Your task to perform on an android device: change keyboard looks Image 0: 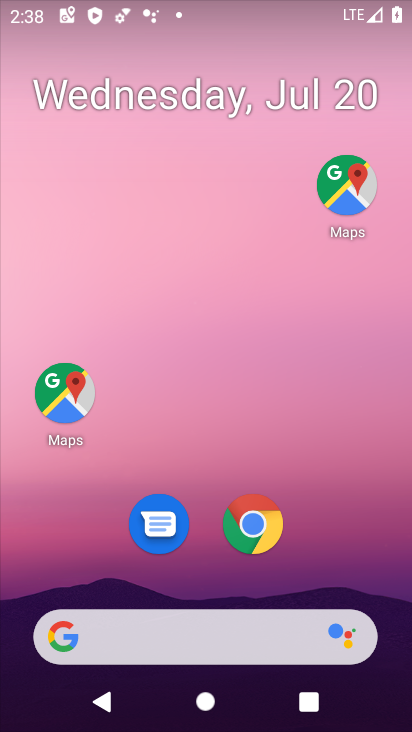
Step 0: drag from (334, 543) to (327, 75)
Your task to perform on an android device: change keyboard looks Image 1: 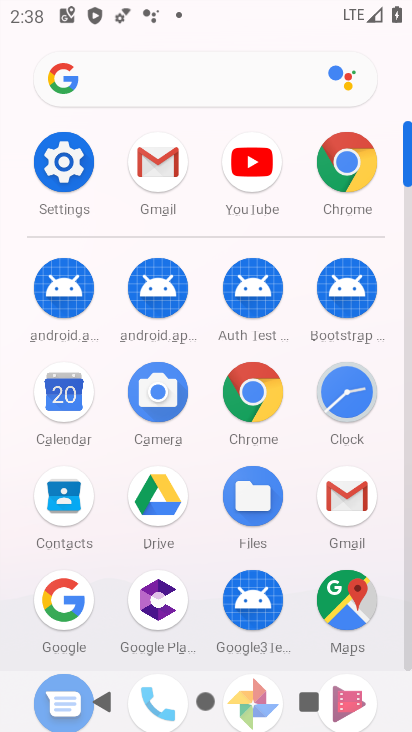
Step 1: click (70, 160)
Your task to perform on an android device: change keyboard looks Image 2: 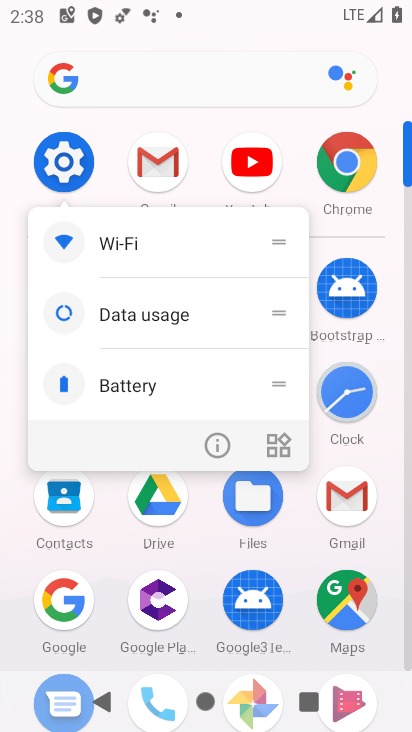
Step 2: click (67, 148)
Your task to perform on an android device: change keyboard looks Image 3: 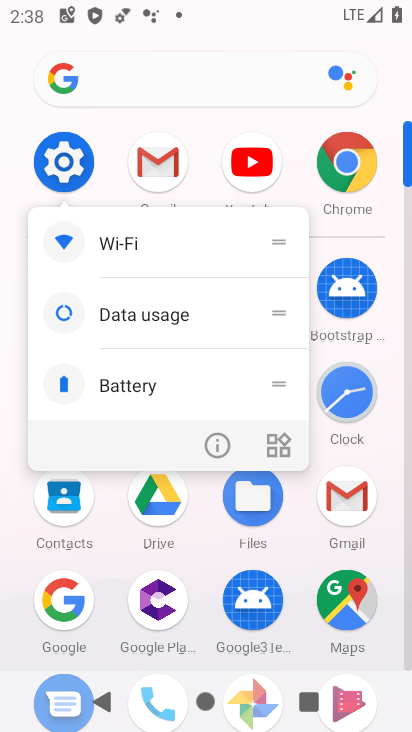
Step 3: click (65, 148)
Your task to perform on an android device: change keyboard looks Image 4: 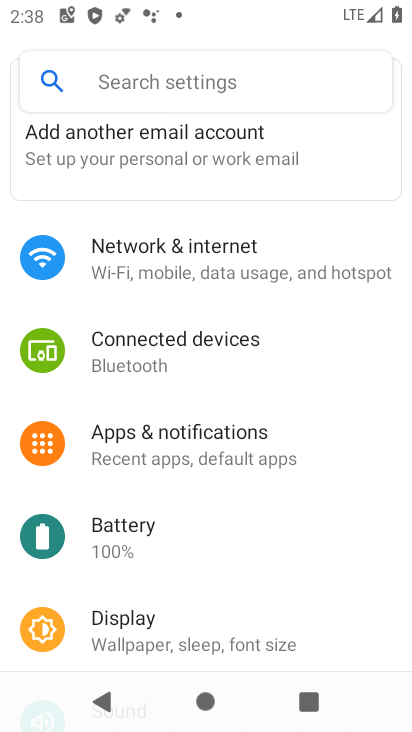
Step 4: drag from (219, 561) to (231, 99)
Your task to perform on an android device: change keyboard looks Image 5: 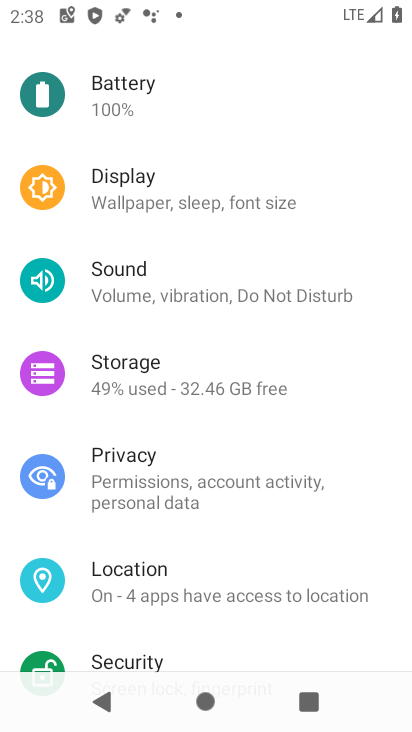
Step 5: drag from (239, 509) to (227, 115)
Your task to perform on an android device: change keyboard looks Image 6: 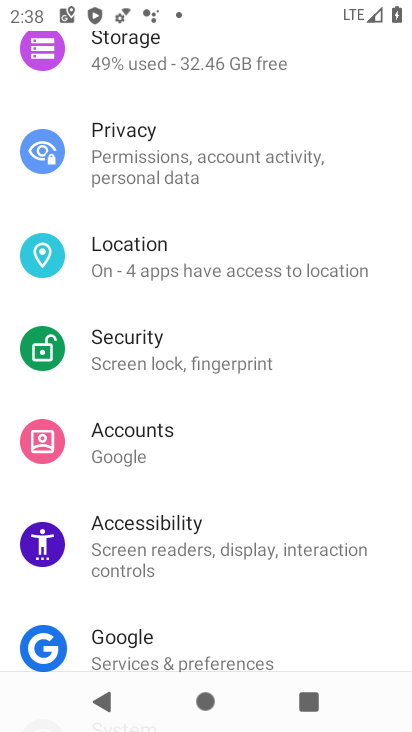
Step 6: drag from (255, 383) to (242, 125)
Your task to perform on an android device: change keyboard looks Image 7: 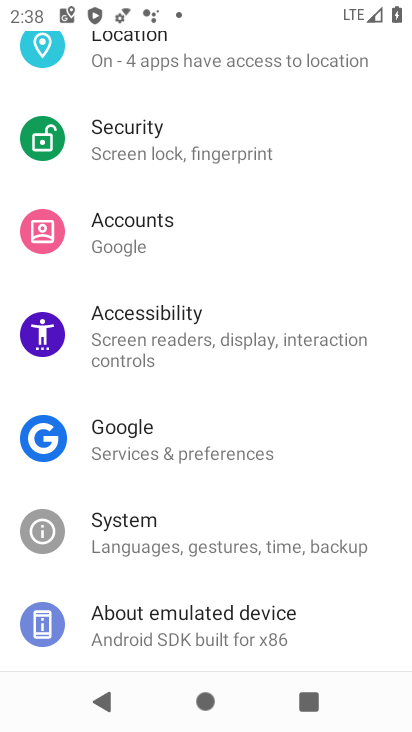
Step 7: click (205, 534)
Your task to perform on an android device: change keyboard looks Image 8: 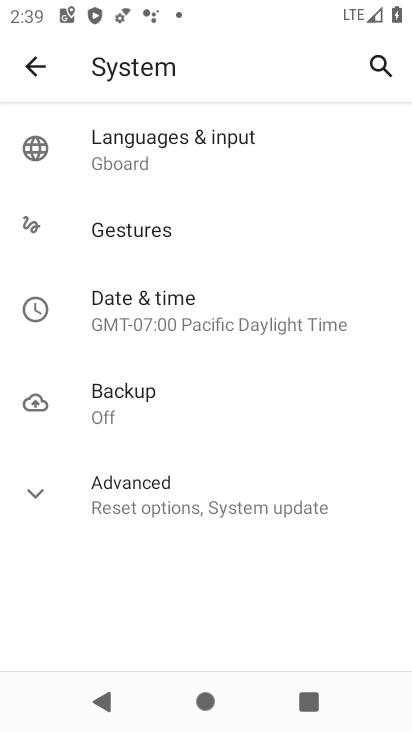
Step 8: click (183, 154)
Your task to perform on an android device: change keyboard looks Image 9: 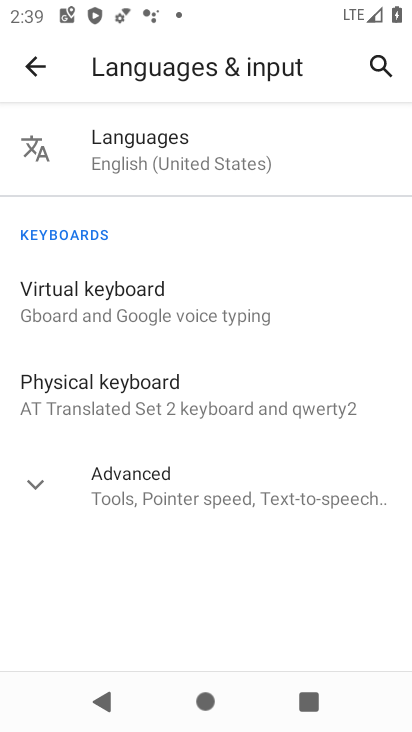
Step 9: click (112, 290)
Your task to perform on an android device: change keyboard looks Image 10: 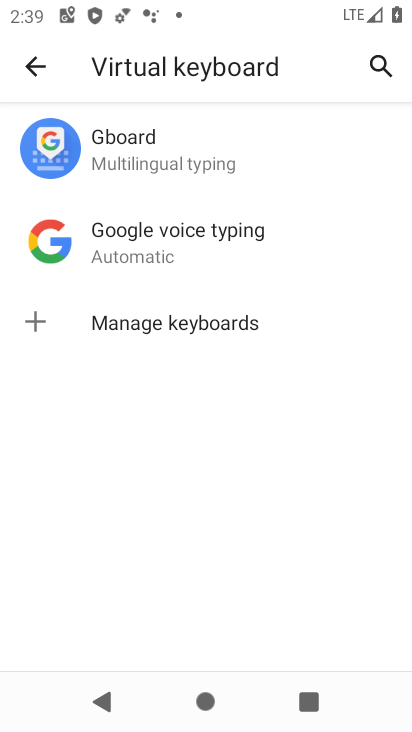
Step 10: click (162, 156)
Your task to perform on an android device: change keyboard looks Image 11: 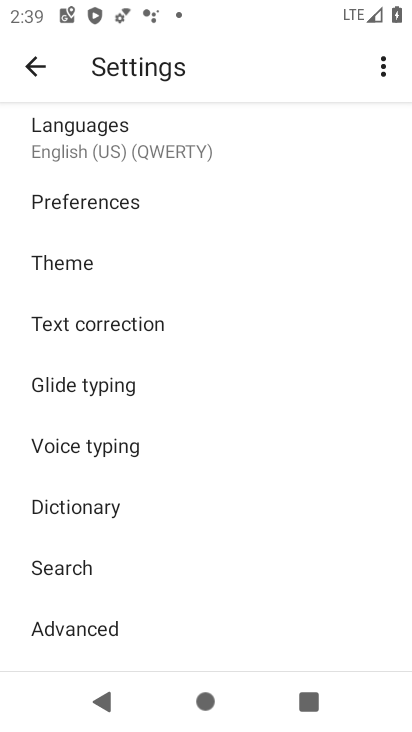
Step 11: click (66, 264)
Your task to perform on an android device: change keyboard looks Image 12: 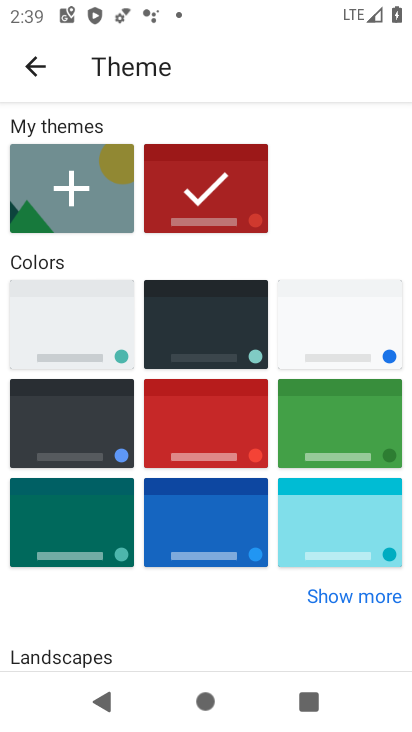
Step 12: click (331, 429)
Your task to perform on an android device: change keyboard looks Image 13: 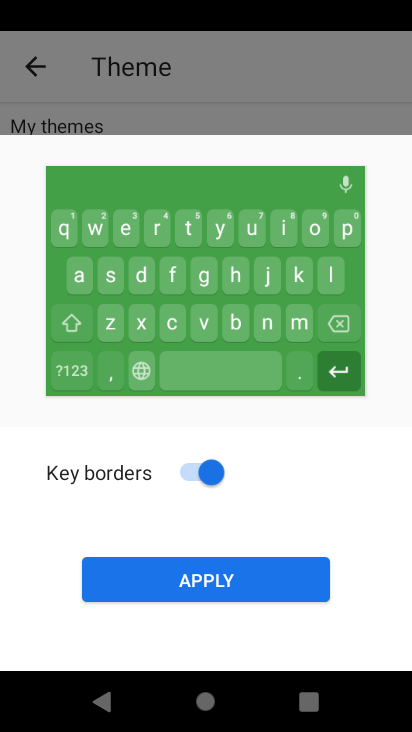
Step 13: click (212, 576)
Your task to perform on an android device: change keyboard looks Image 14: 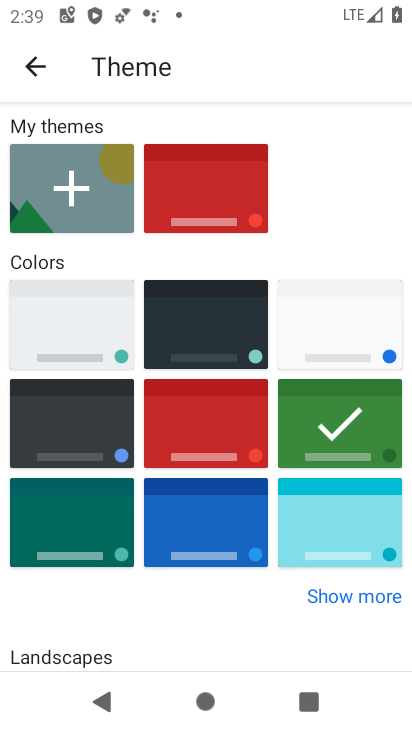
Step 14: task complete